Your task to perform on an android device: What is the news today? Image 0: 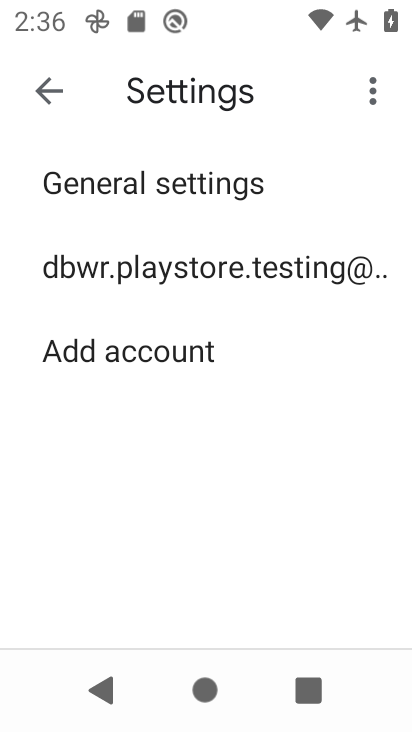
Step 0: press home button
Your task to perform on an android device: What is the news today? Image 1: 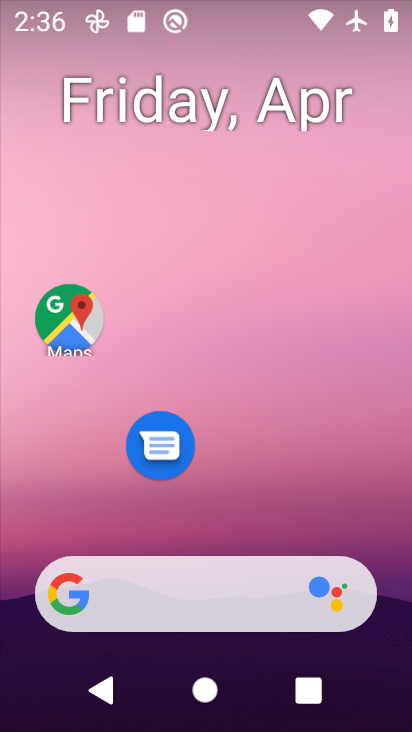
Step 1: drag from (291, 480) to (315, 178)
Your task to perform on an android device: What is the news today? Image 2: 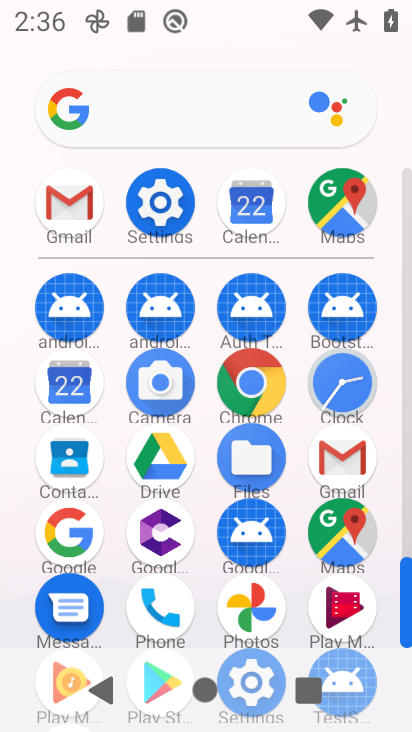
Step 2: click (173, 110)
Your task to perform on an android device: What is the news today? Image 3: 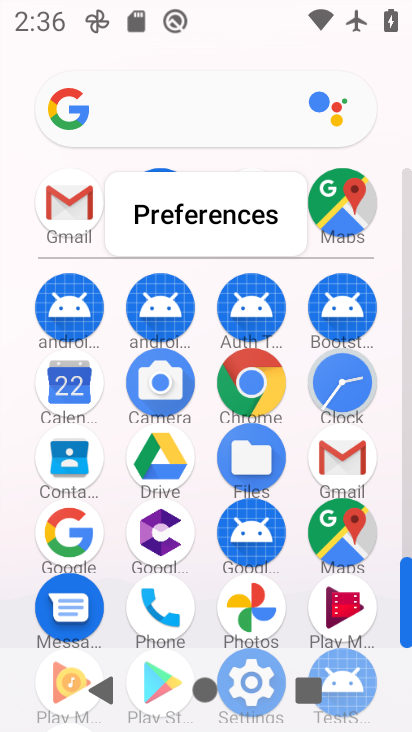
Step 3: click (178, 97)
Your task to perform on an android device: What is the news today? Image 4: 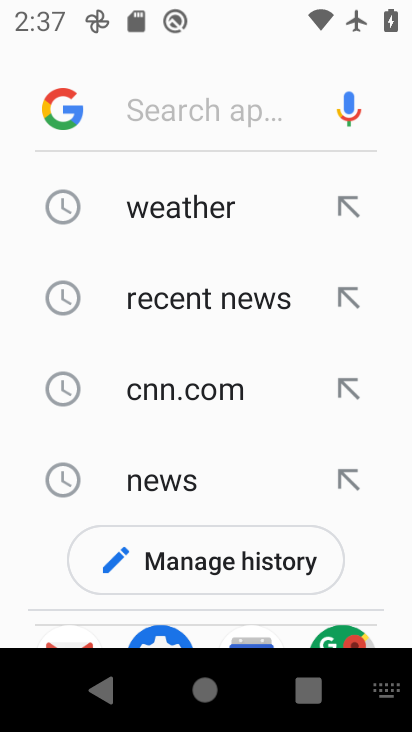
Step 4: type "what is the news today"
Your task to perform on an android device: What is the news today? Image 5: 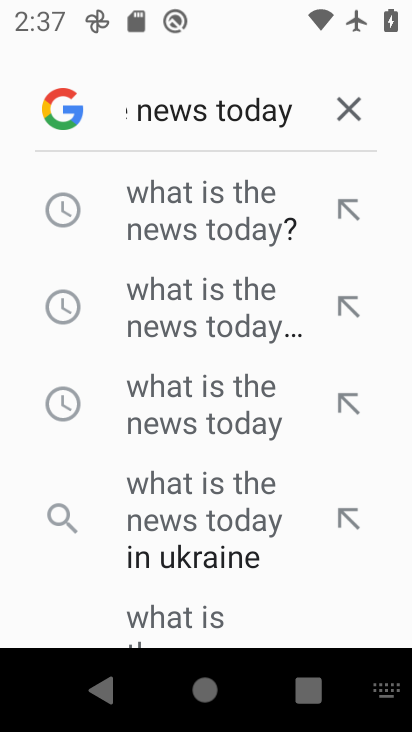
Step 5: click (193, 223)
Your task to perform on an android device: What is the news today? Image 6: 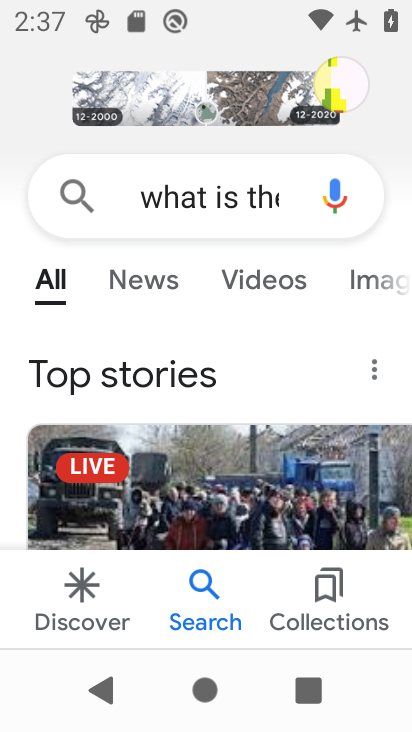
Step 6: click (165, 294)
Your task to perform on an android device: What is the news today? Image 7: 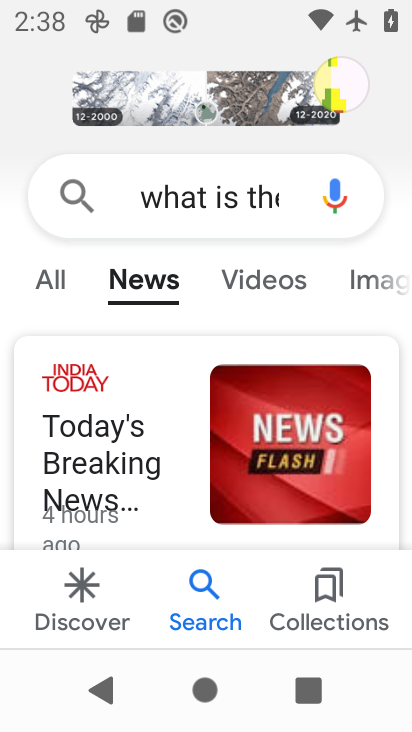
Step 7: task complete